Your task to perform on an android device: Go to calendar. Show me events next week Image 0: 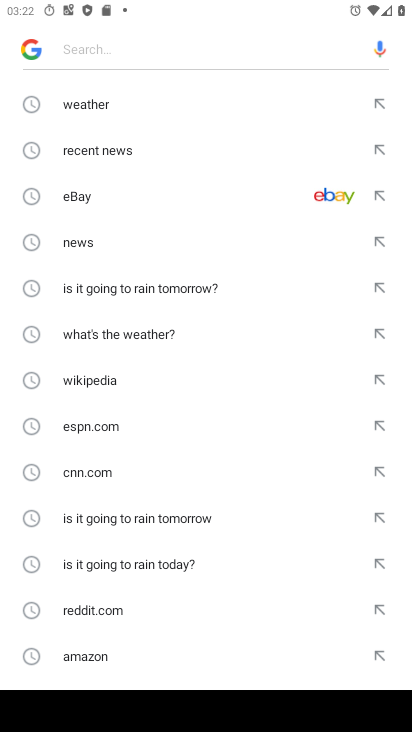
Step 0: press home button
Your task to perform on an android device: Go to calendar. Show me events next week Image 1: 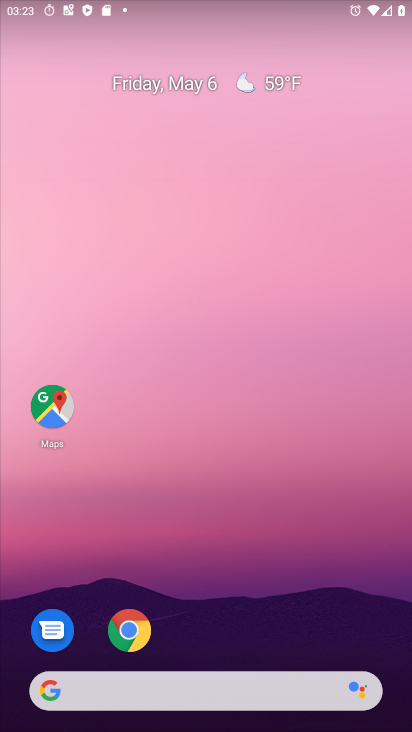
Step 1: drag from (204, 557) to (213, 214)
Your task to perform on an android device: Go to calendar. Show me events next week Image 2: 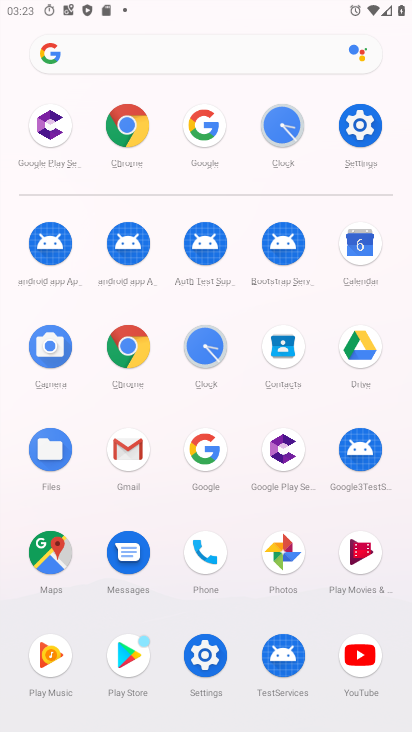
Step 2: click (358, 233)
Your task to perform on an android device: Go to calendar. Show me events next week Image 3: 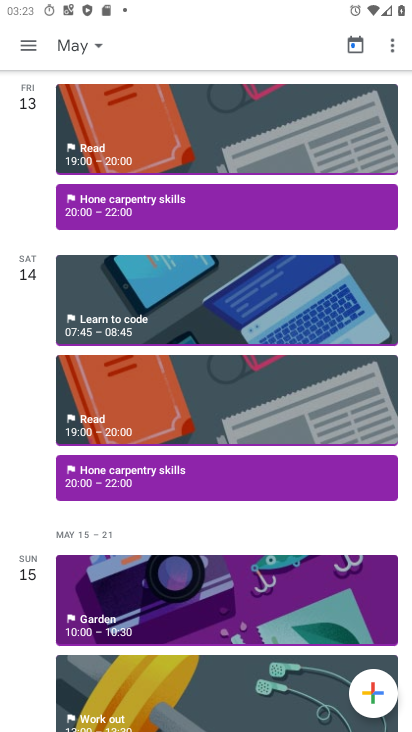
Step 3: click (84, 54)
Your task to perform on an android device: Go to calendar. Show me events next week Image 4: 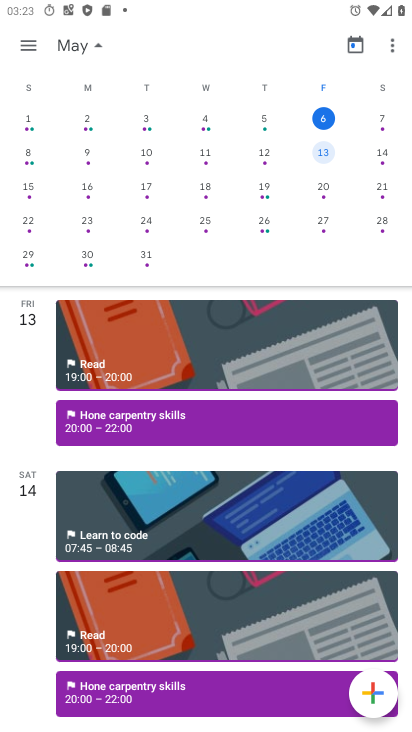
Step 4: click (372, 156)
Your task to perform on an android device: Go to calendar. Show me events next week Image 5: 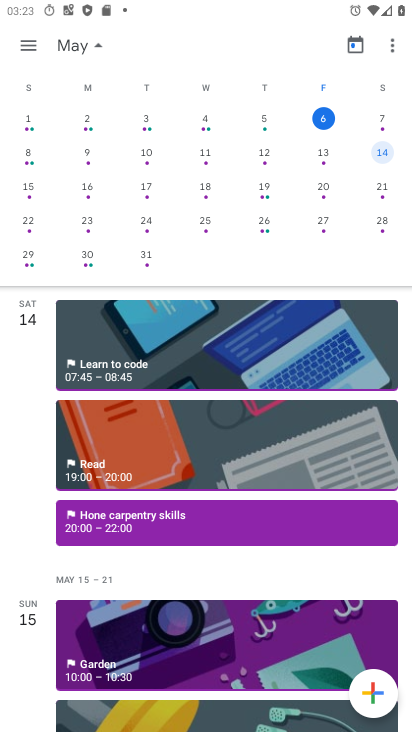
Step 5: click (325, 156)
Your task to perform on an android device: Go to calendar. Show me events next week Image 6: 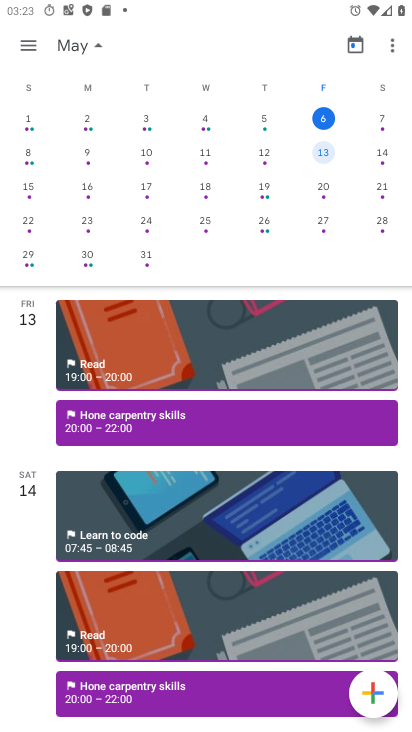
Step 6: click (204, 154)
Your task to perform on an android device: Go to calendar. Show me events next week Image 7: 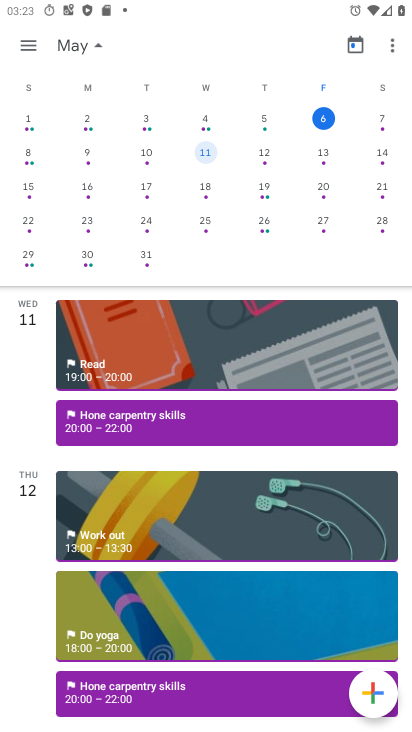
Step 7: click (28, 157)
Your task to perform on an android device: Go to calendar. Show me events next week Image 8: 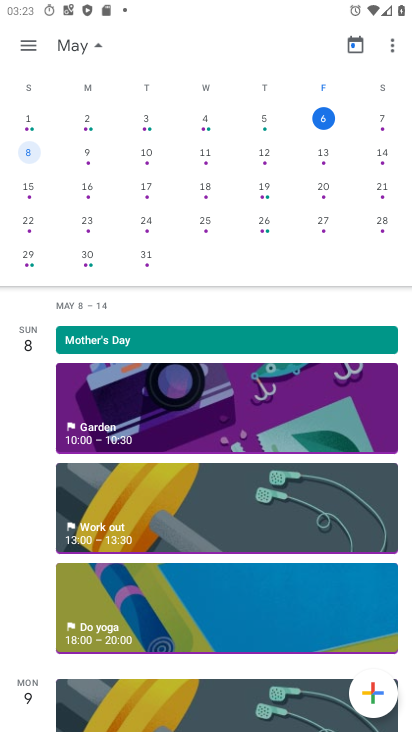
Step 8: drag from (200, 545) to (216, 334)
Your task to perform on an android device: Go to calendar. Show me events next week Image 9: 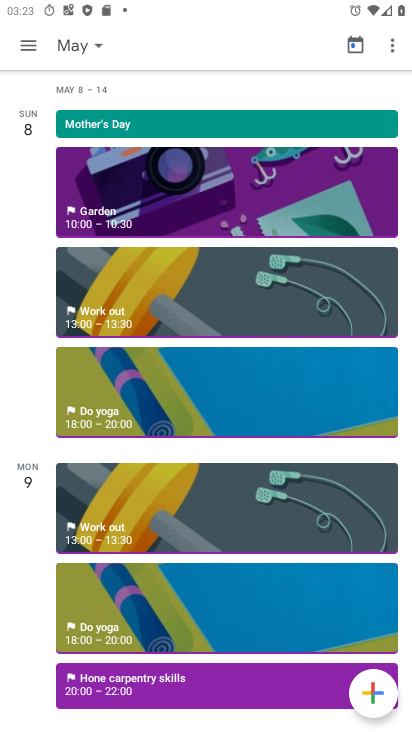
Step 9: click (101, 130)
Your task to perform on an android device: Go to calendar. Show me events next week Image 10: 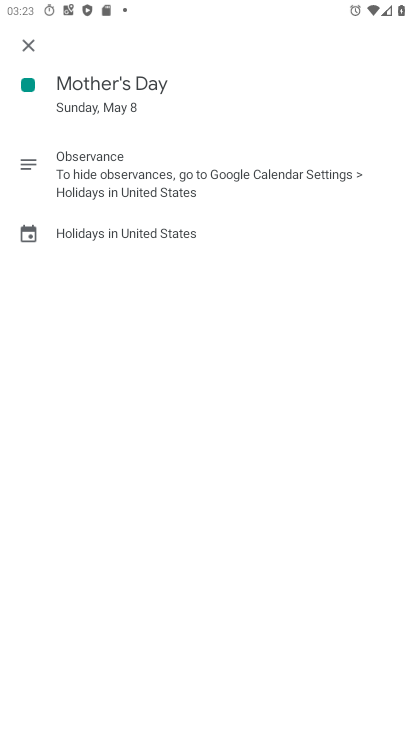
Step 10: task complete